Your task to perform on an android device: turn off priority inbox in the gmail app Image 0: 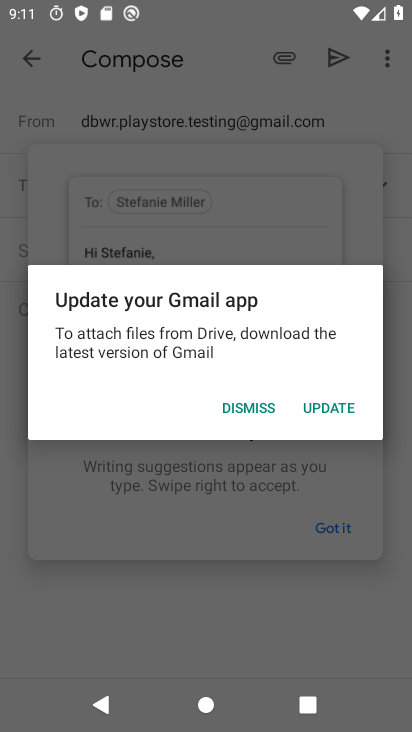
Step 0: press home button
Your task to perform on an android device: turn off priority inbox in the gmail app Image 1: 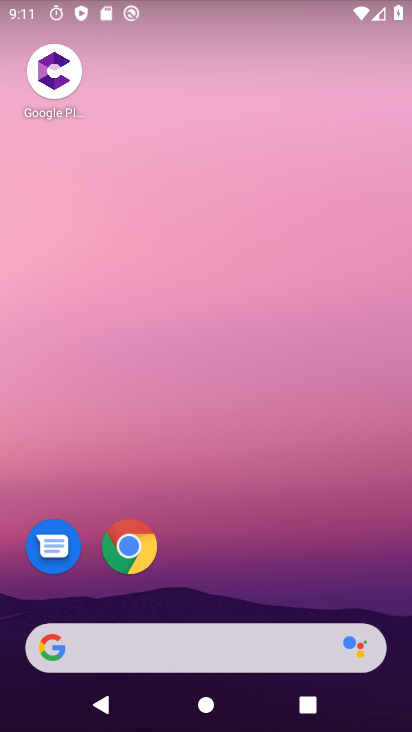
Step 1: drag from (244, 558) to (281, 107)
Your task to perform on an android device: turn off priority inbox in the gmail app Image 2: 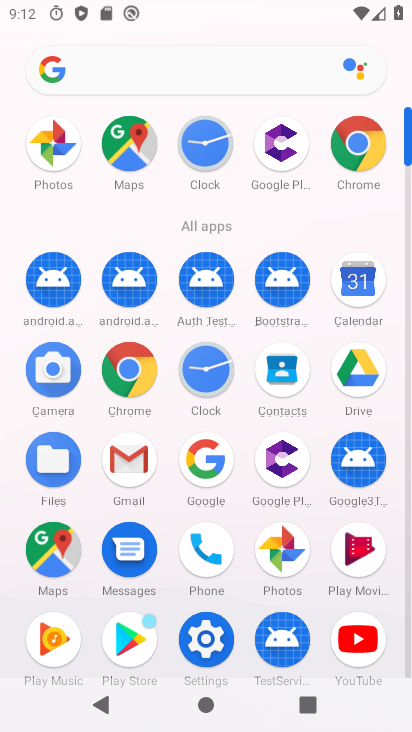
Step 2: click (140, 453)
Your task to perform on an android device: turn off priority inbox in the gmail app Image 3: 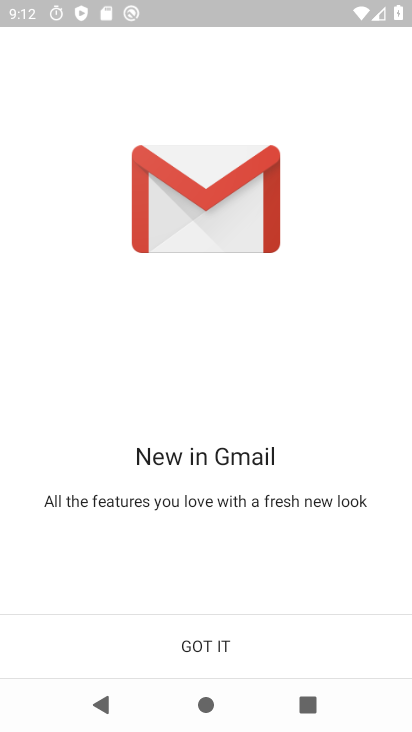
Step 3: click (201, 648)
Your task to perform on an android device: turn off priority inbox in the gmail app Image 4: 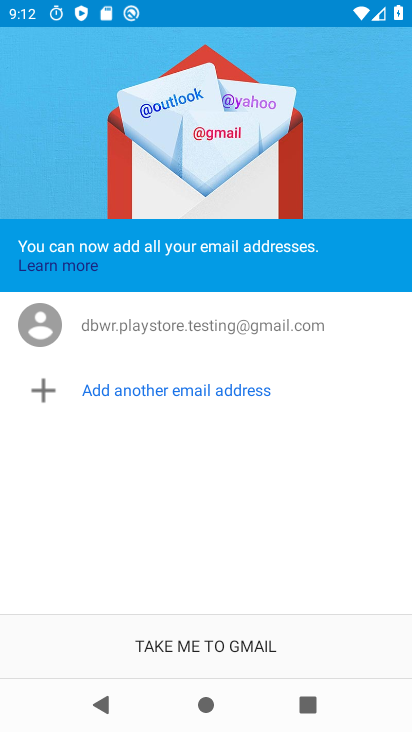
Step 4: click (201, 648)
Your task to perform on an android device: turn off priority inbox in the gmail app Image 5: 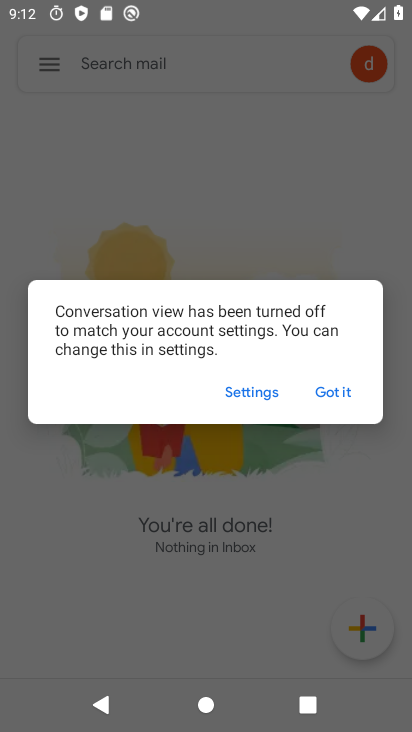
Step 5: click (346, 397)
Your task to perform on an android device: turn off priority inbox in the gmail app Image 6: 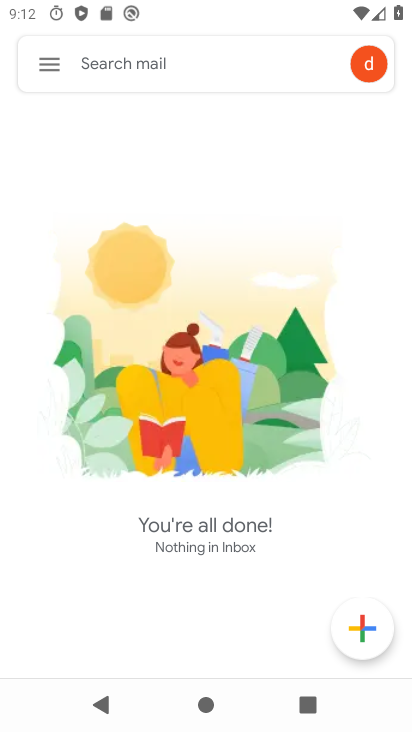
Step 6: click (52, 60)
Your task to perform on an android device: turn off priority inbox in the gmail app Image 7: 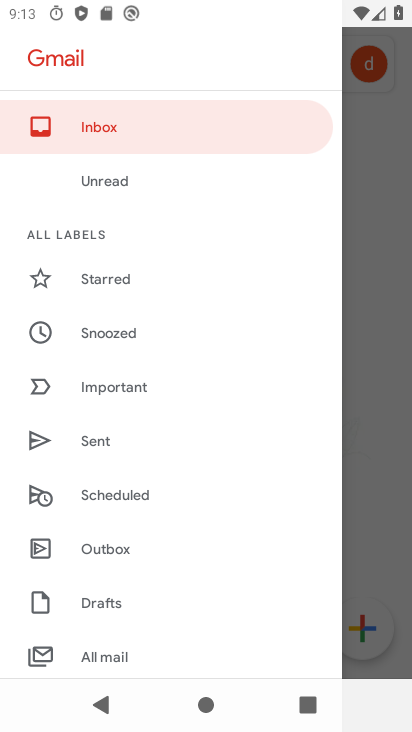
Step 7: drag from (186, 585) to (221, 161)
Your task to perform on an android device: turn off priority inbox in the gmail app Image 8: 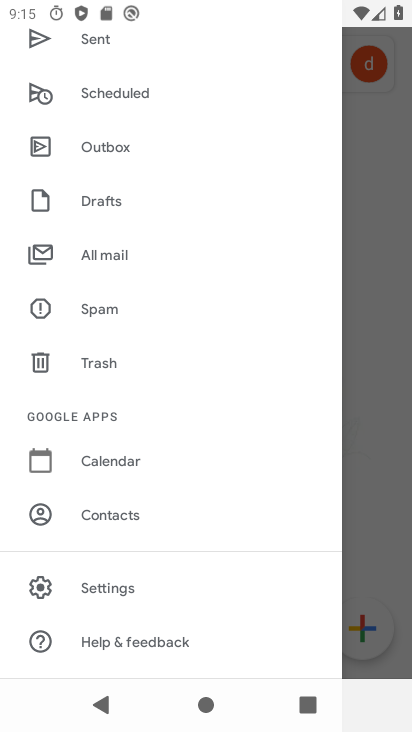
Step 8: click (114, 589)
Your task to perform on an android device: turn off priority inbox in the gmail app Image 9: 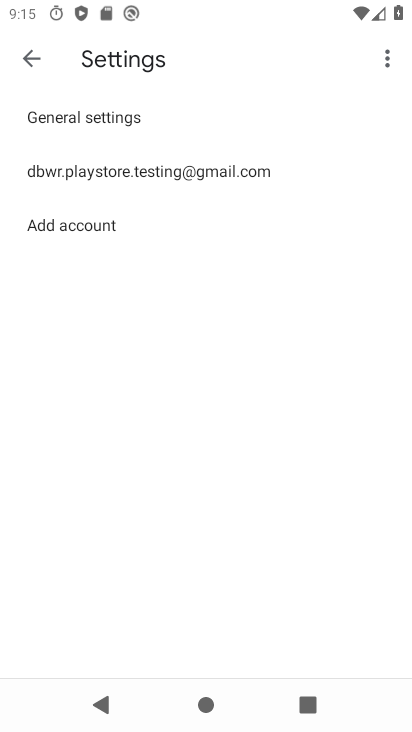
Step 9: click (220, 170)
Your task to perform on an android device: turn off priority inbox in the gmail app Image 10: 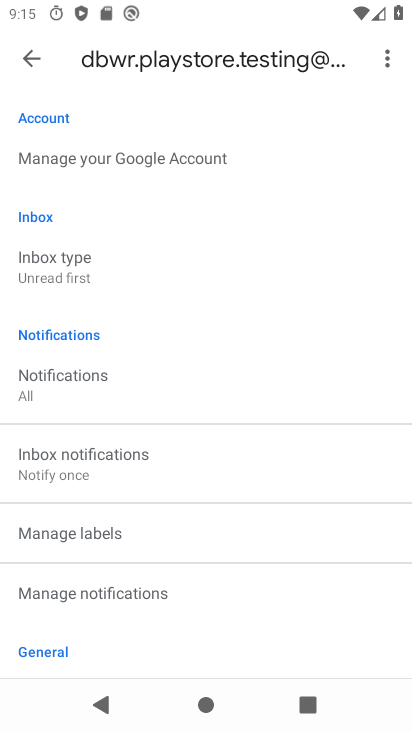
Step 10: click (82, 262)
Your task to perform on an android device: turn off priority inbox in the gmail app Image 11: 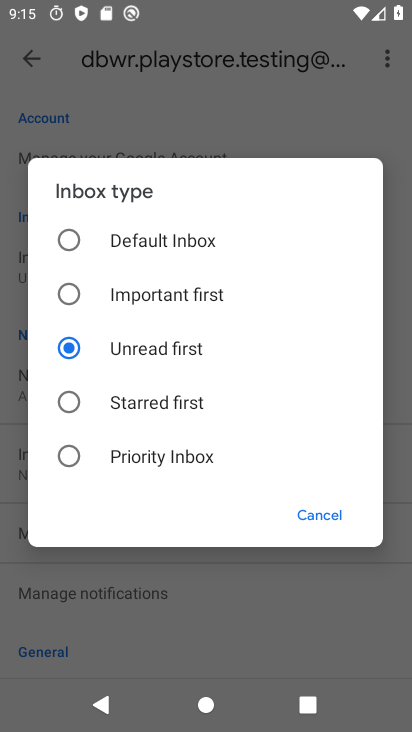
Step 11: click (121, 345)
Your task to perform on an android device: turn off priority inbox in the gmail app Image 12: 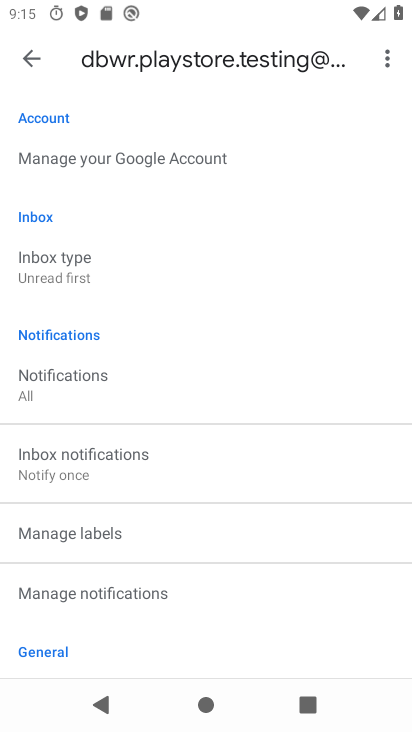
Step 12: task complete